Your task to perform on an android device: install app "Google Home" Image 0: 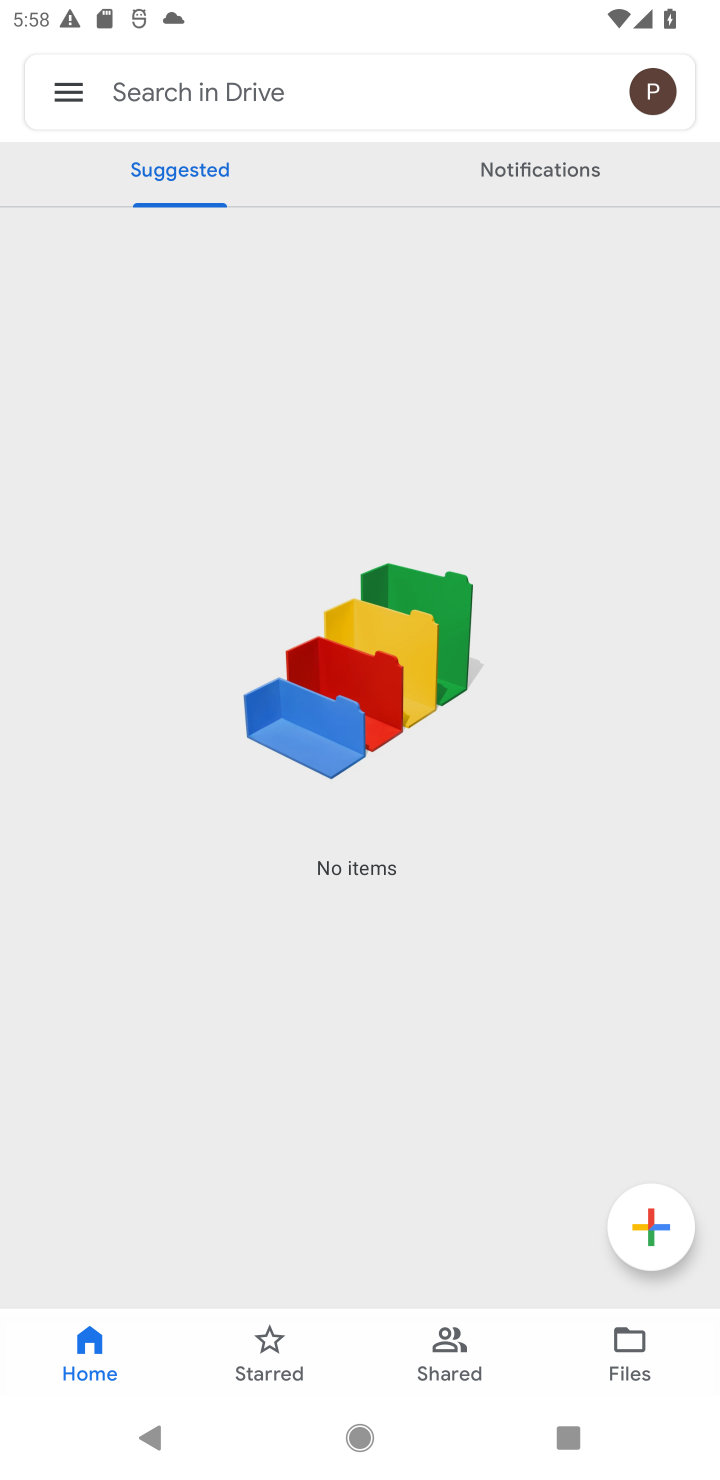
Step 0: press back button
Your task to perform on an android device: install app "Google Home" Image 1: 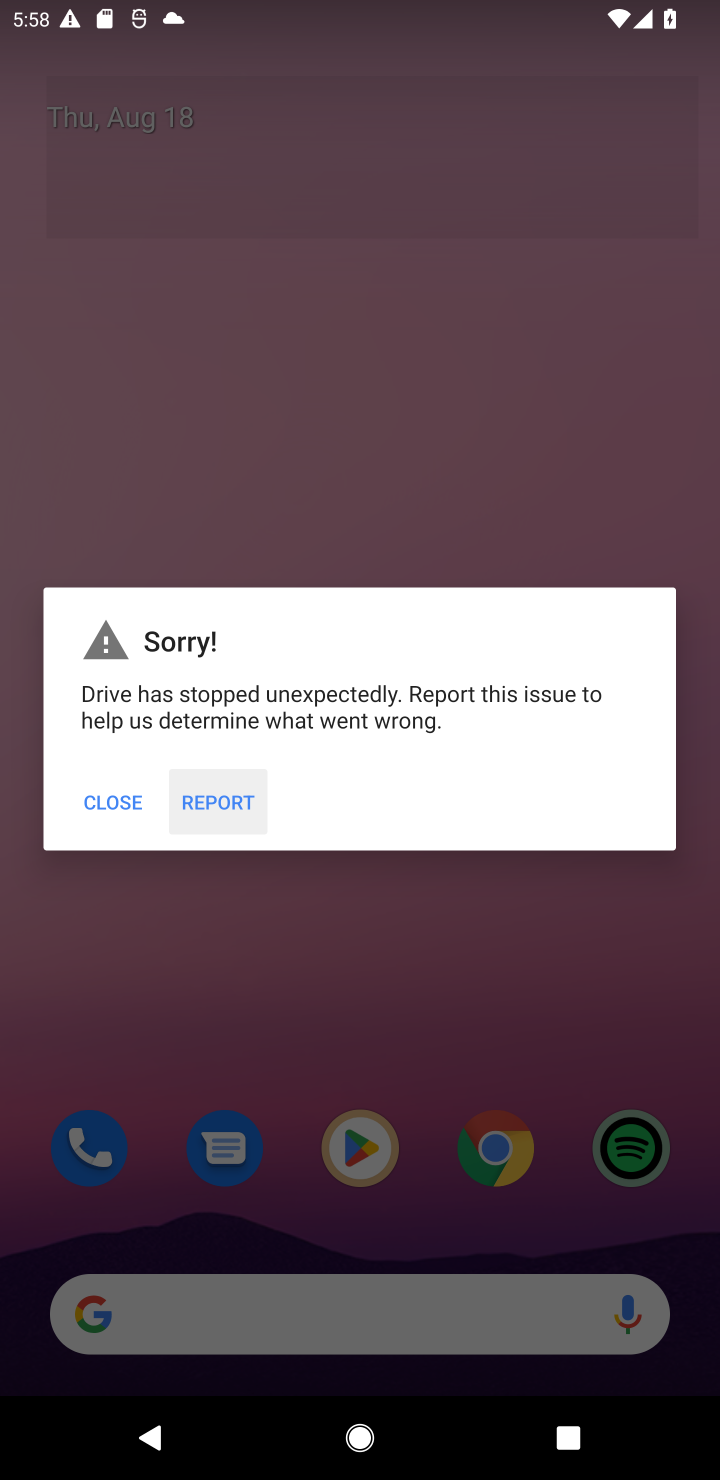
Step 1: click (90, 812)
Your task to perform on an android device: install app "Google Home" Image 2: 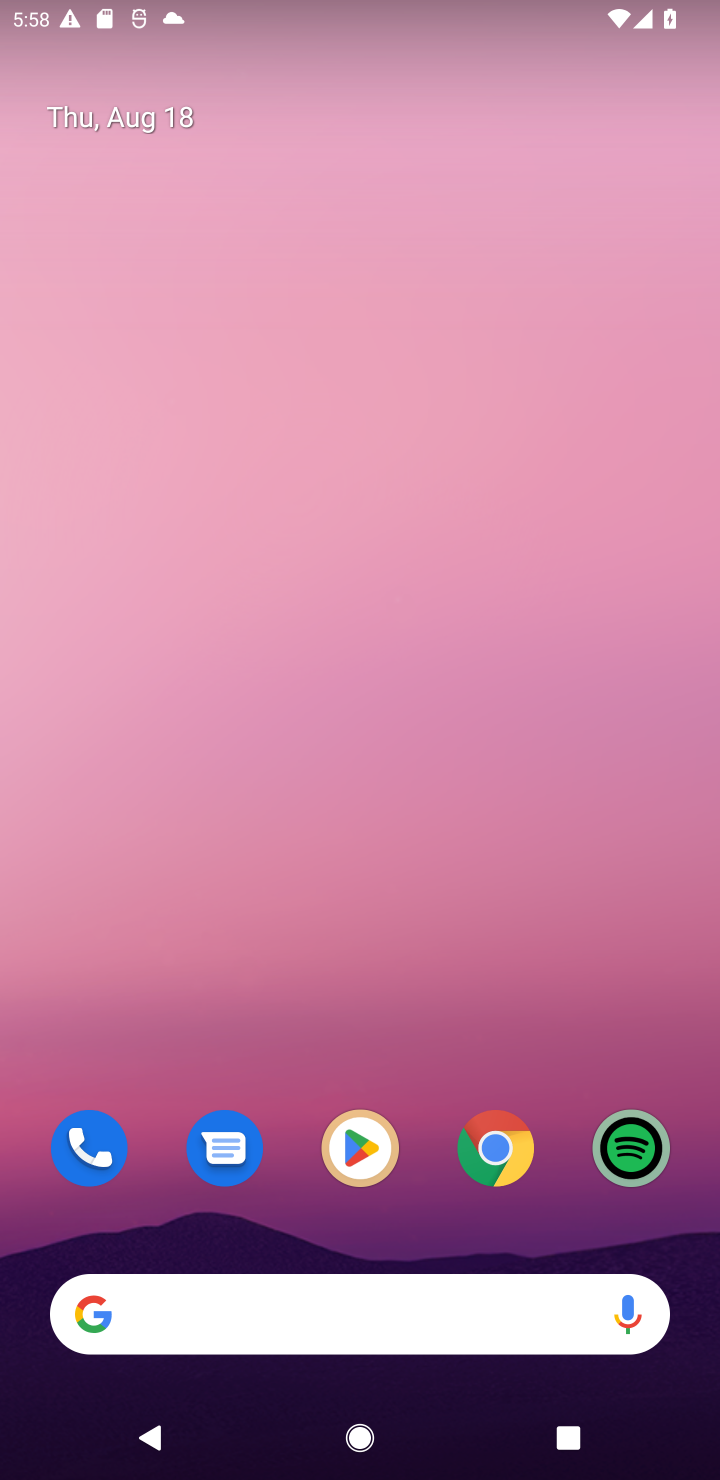
Step 2: drag from (272, 1302) to (213, 0)
Your task to perform on an android device: install app "Google Home" Image 3: 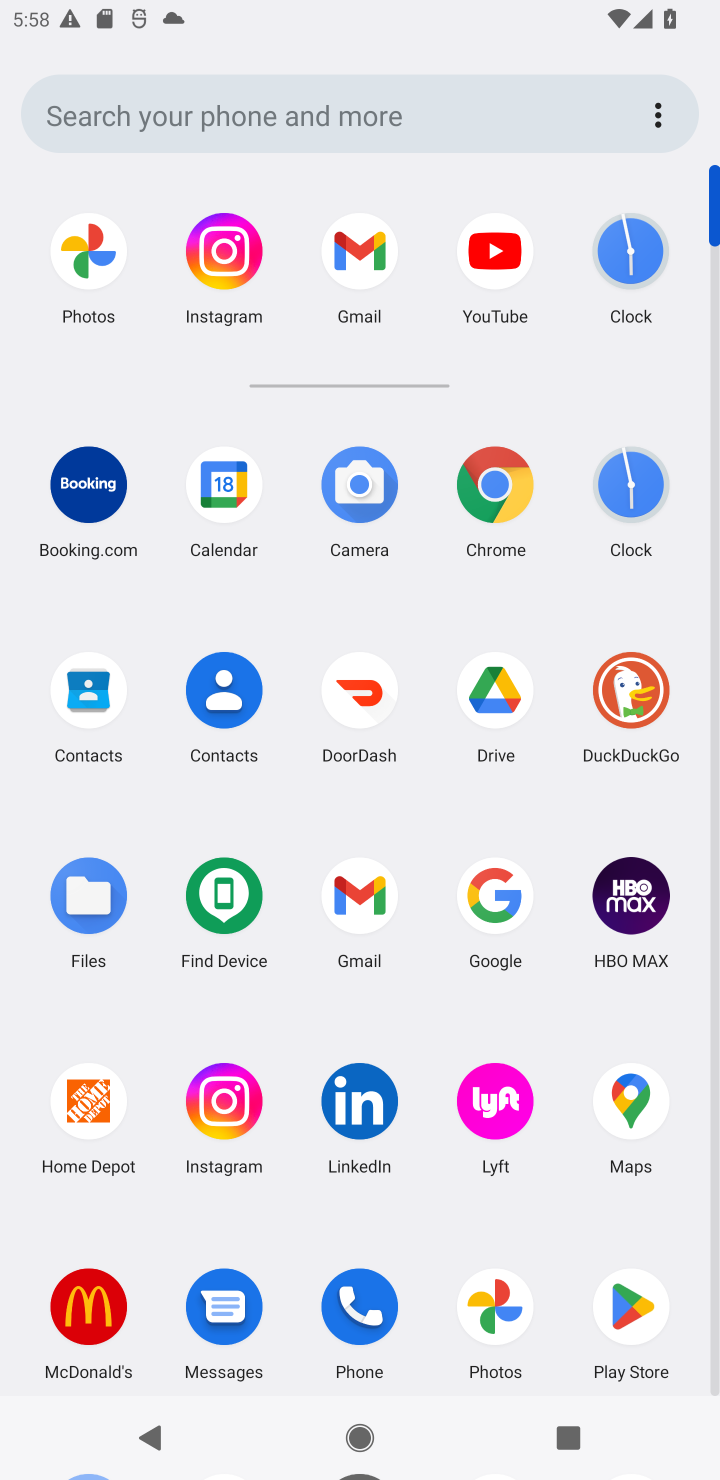
Step 3: click (642, 1308)
Your task to perform on an android device: install app "Google Home" Image 4: 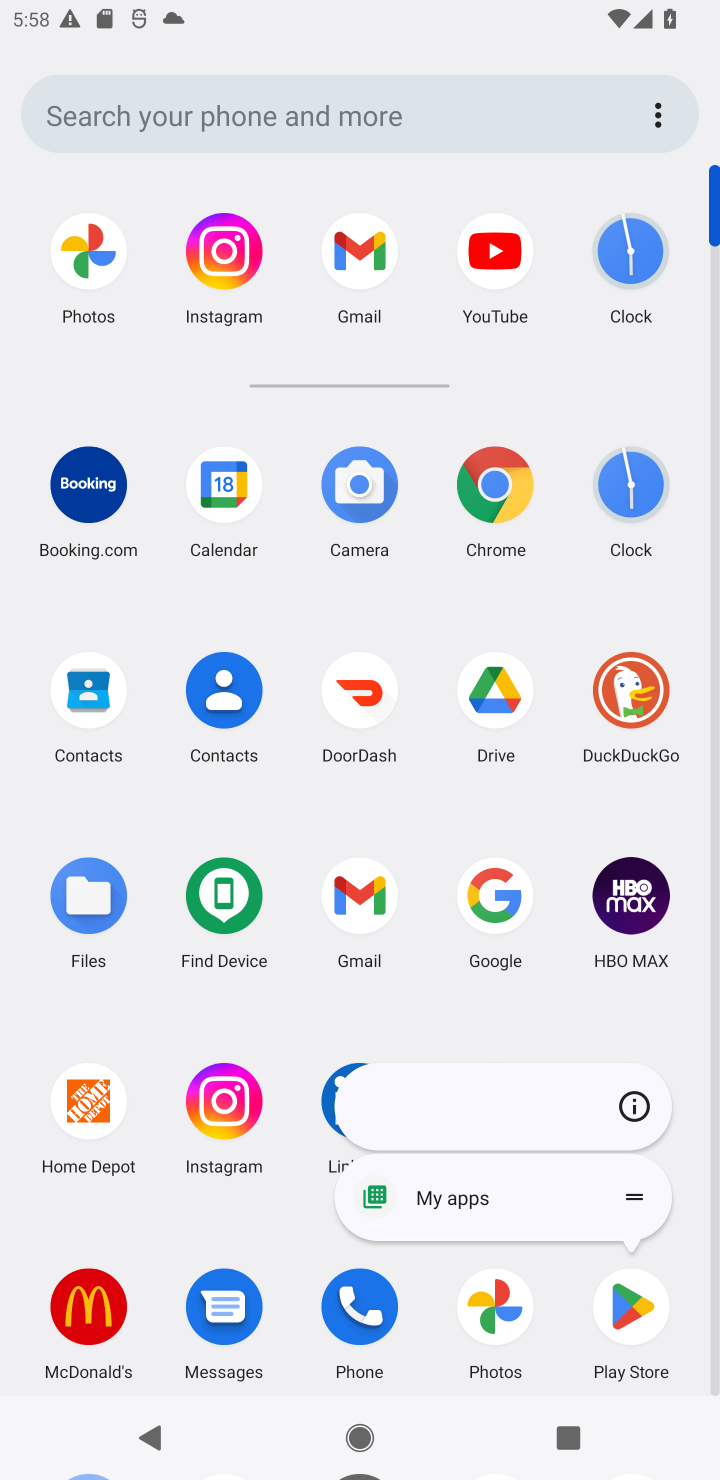
Step 4: click (595, 1293)
Your task to perform on an android device: install app "Google Home" Image 5: 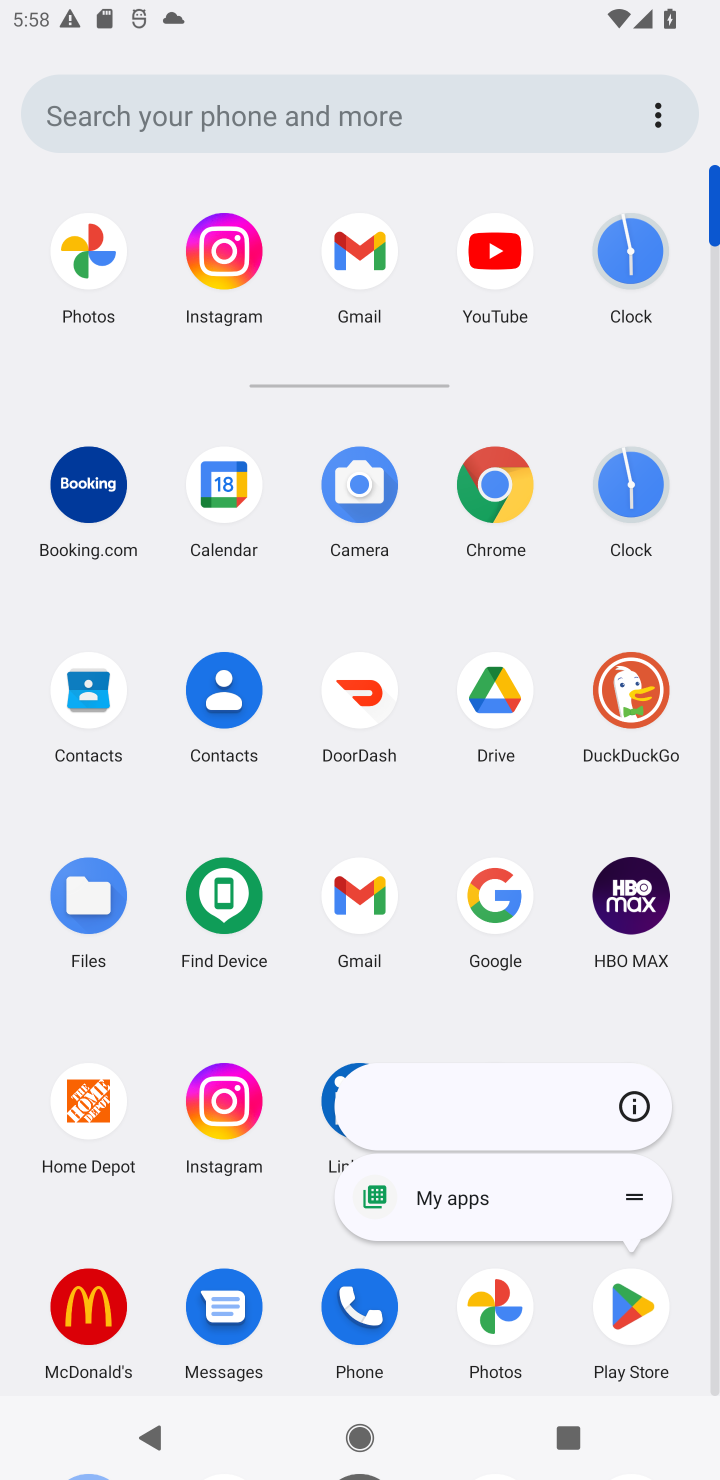
Step 5: click (614, 1302)
Your task to perform on an android device: install app "Google Home" Image 6: 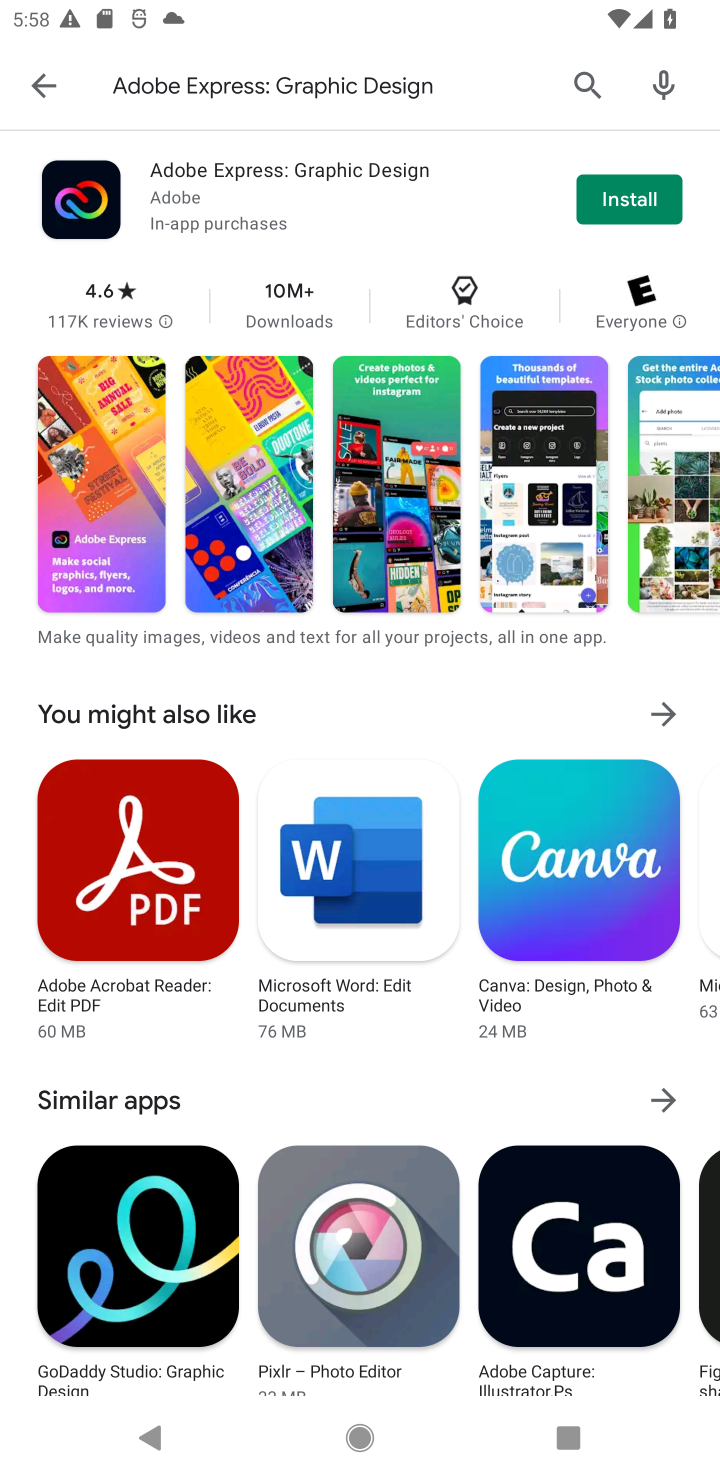
Step 6: press back button
Your task to perform on an android device: install app "Google Home" Image 7: 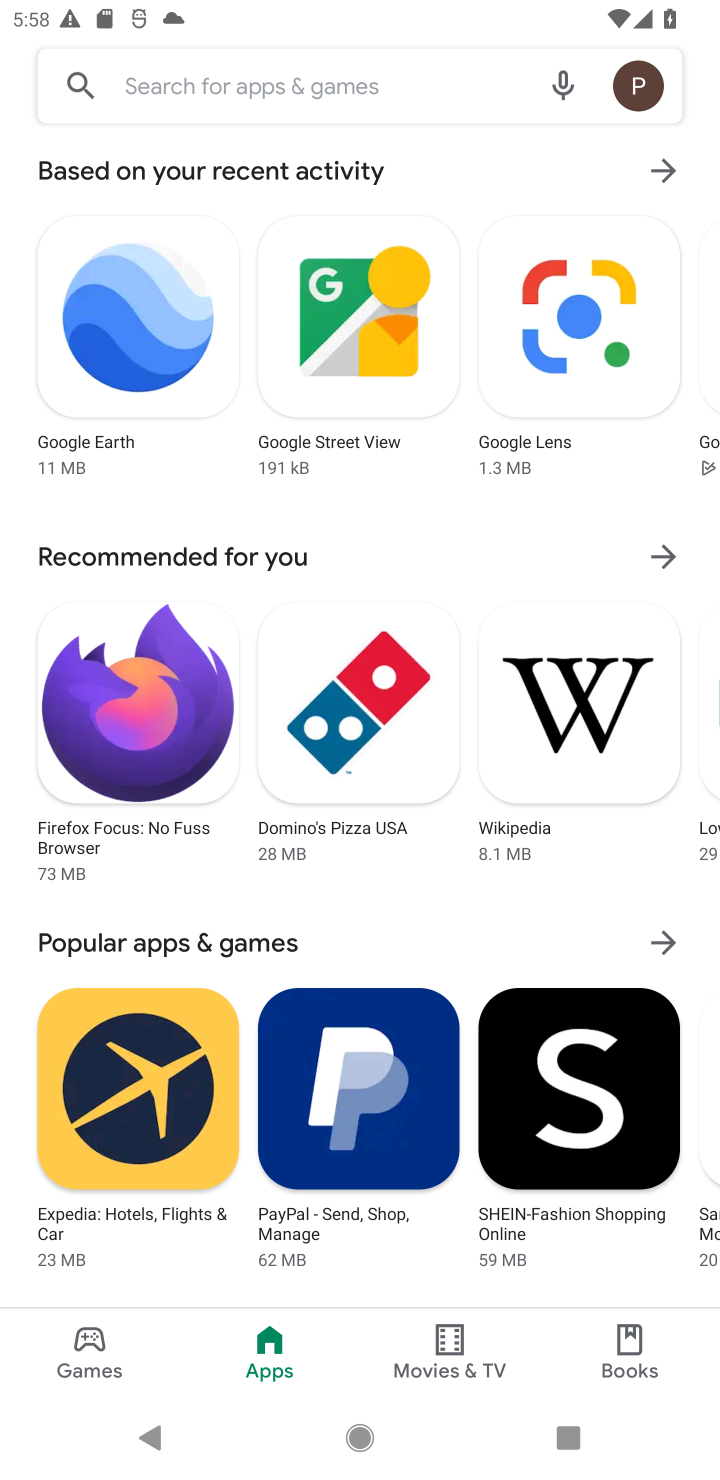
Step 7: click (163, 83)
Your task to perform on an android device: install app "Google Home" Image 8: 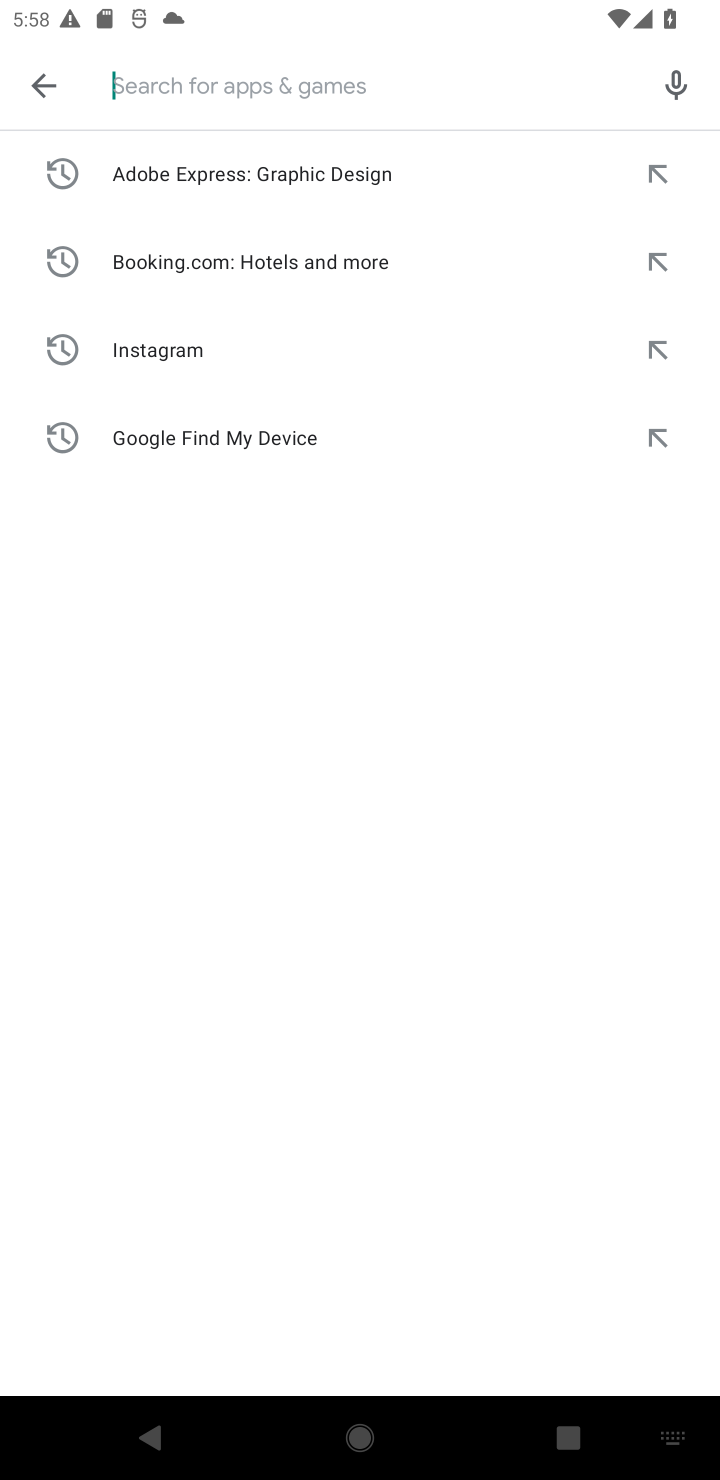
Step 8: type "Google Home"
Your task to perform on an android device: install app "Google Home" Image 9: 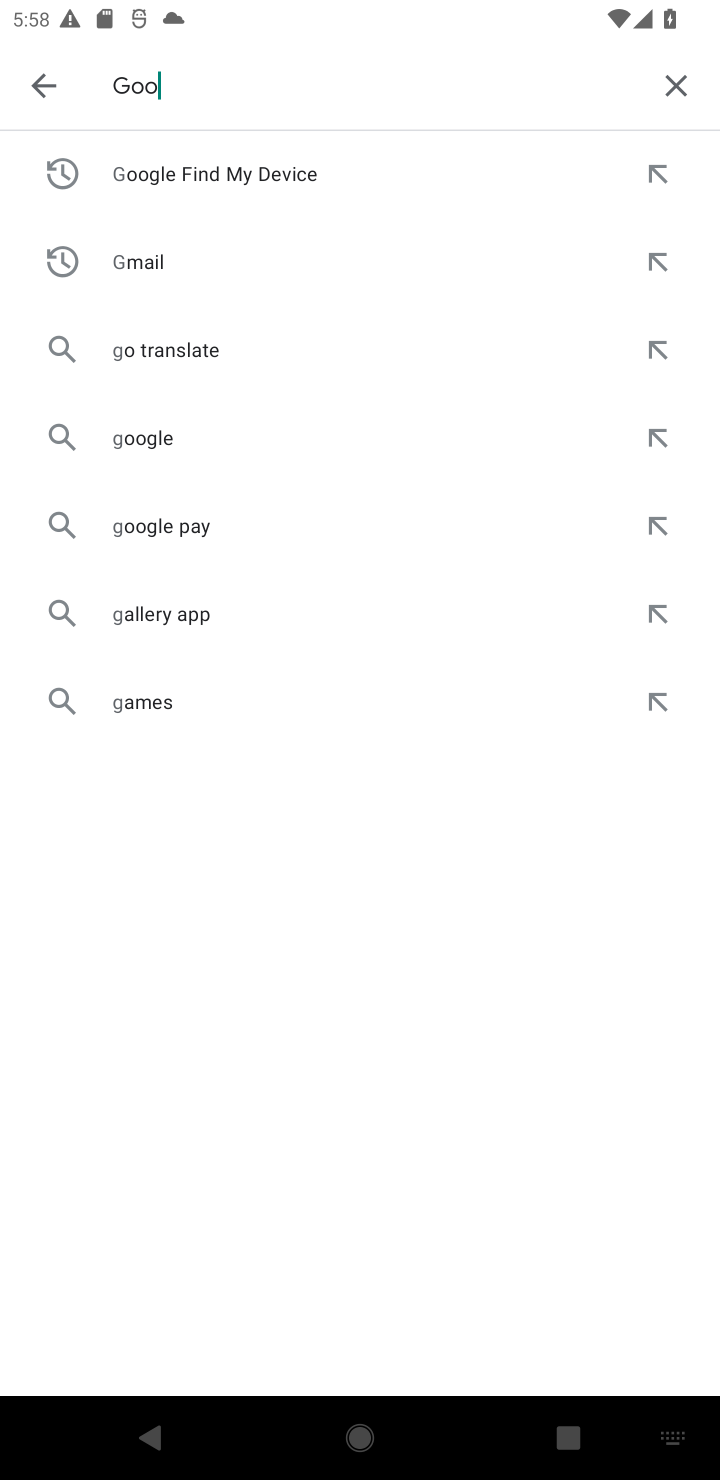
Step 9: press enter
Your task to perform on an android device: install app "Google Home" Image 10: 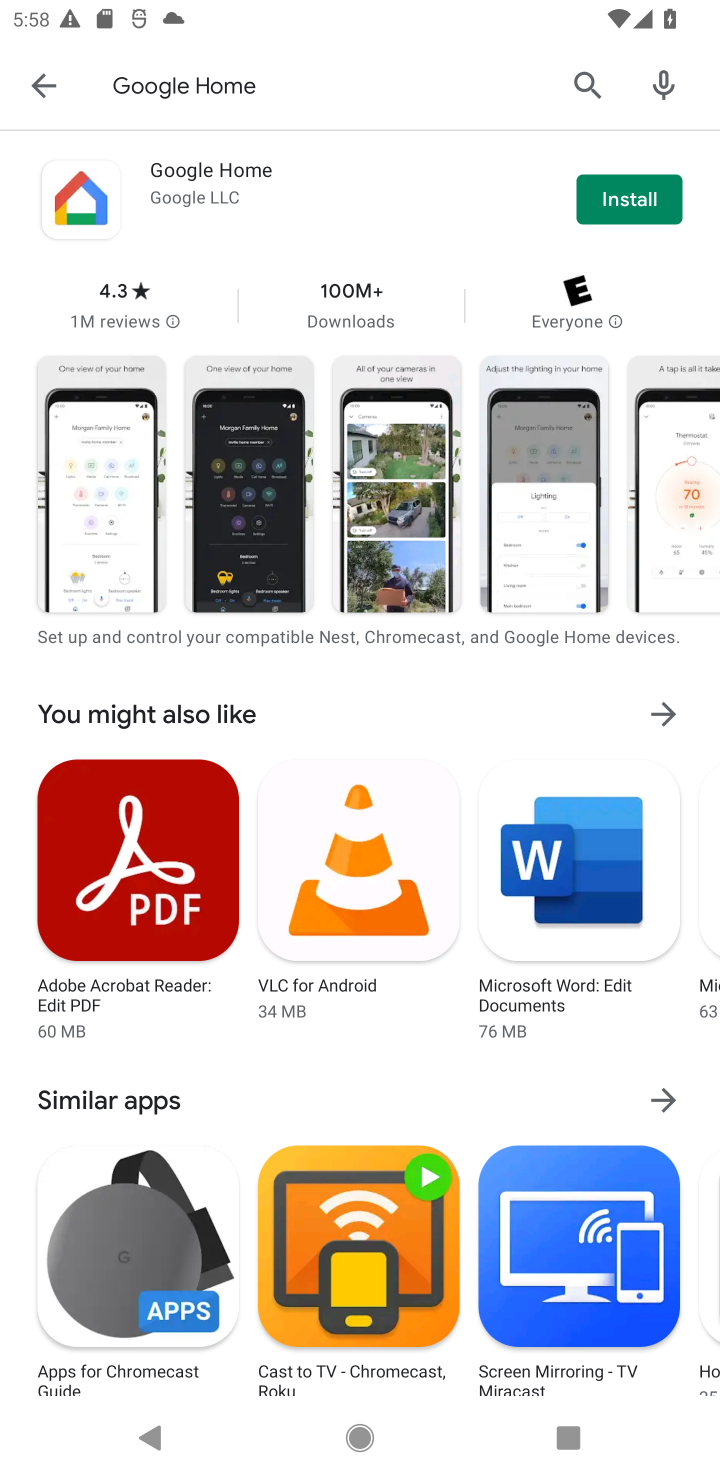
Step 10: click (623, 192)
Your task to perform on an android device: install app "Google Home" Image 11: 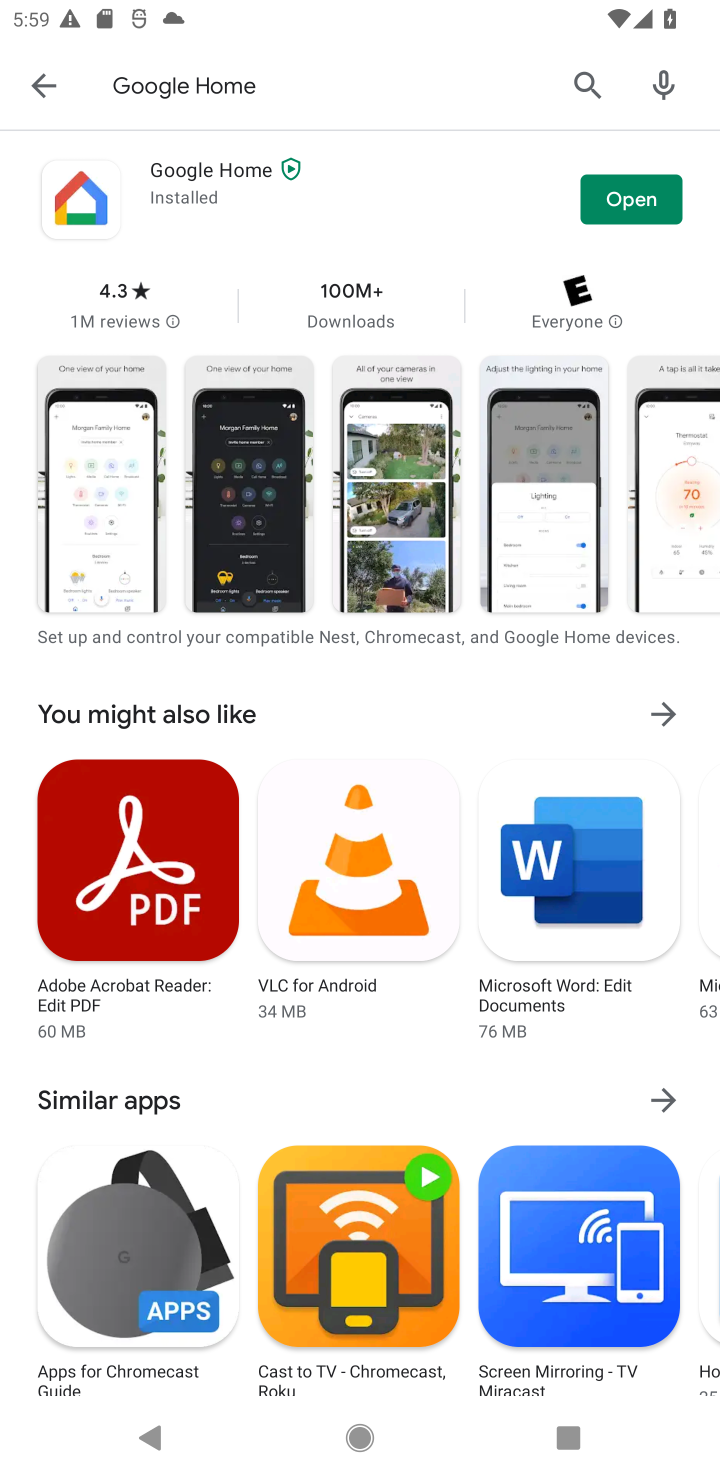
Step 11: click (673, 205)
Your task to perform on an android device: install app "Google Home" Image 12: 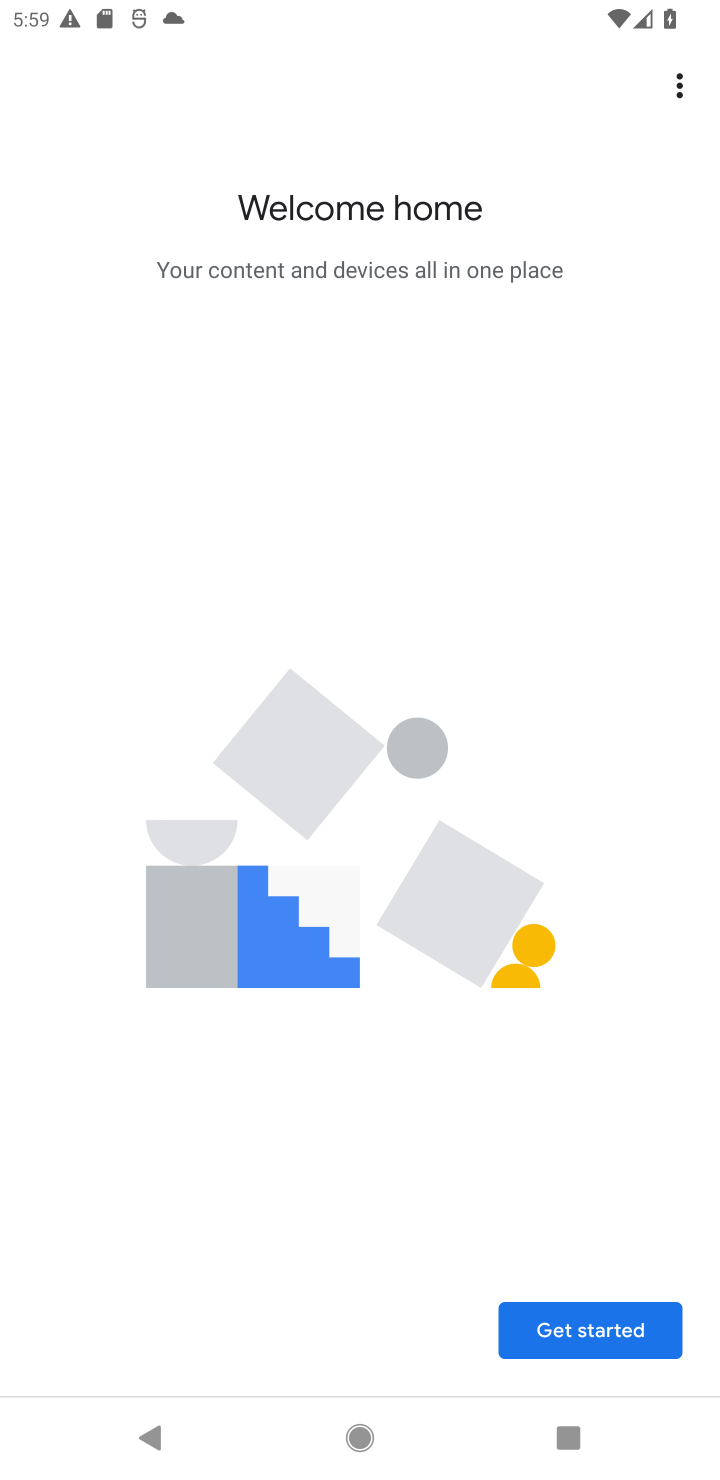
Step 12: task complete